Your task to perform on an android device: Search for "corsair k70" on newegg, select the first entry, add it to the cart, then select checkout. Image 0: 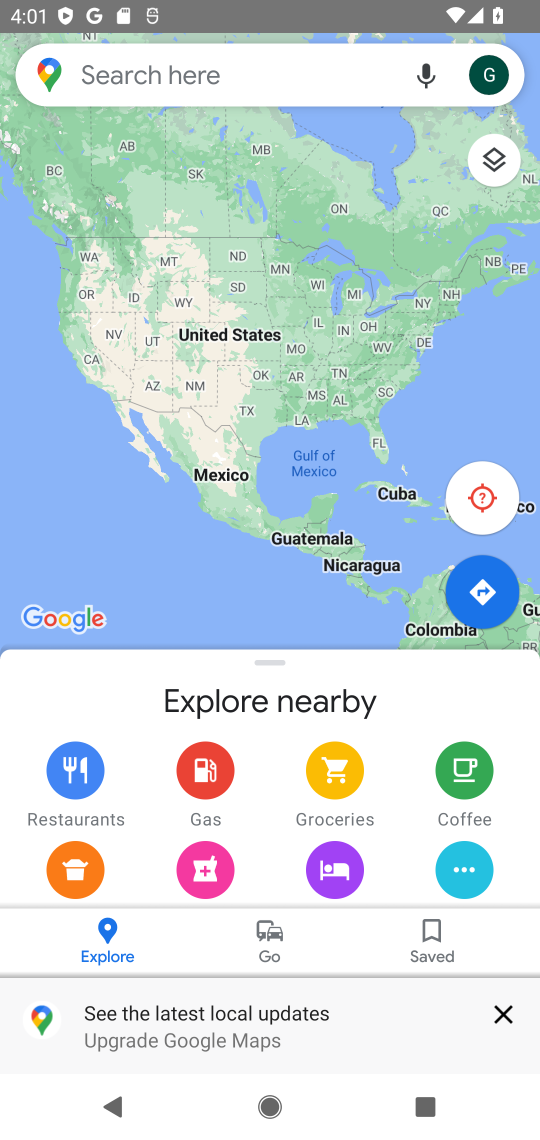
Step 0: press home button
Your task to perform on an android device: Search for "corsair k70" on newegg, select the first entry, add it to the cart, then select checkout. Image 1: 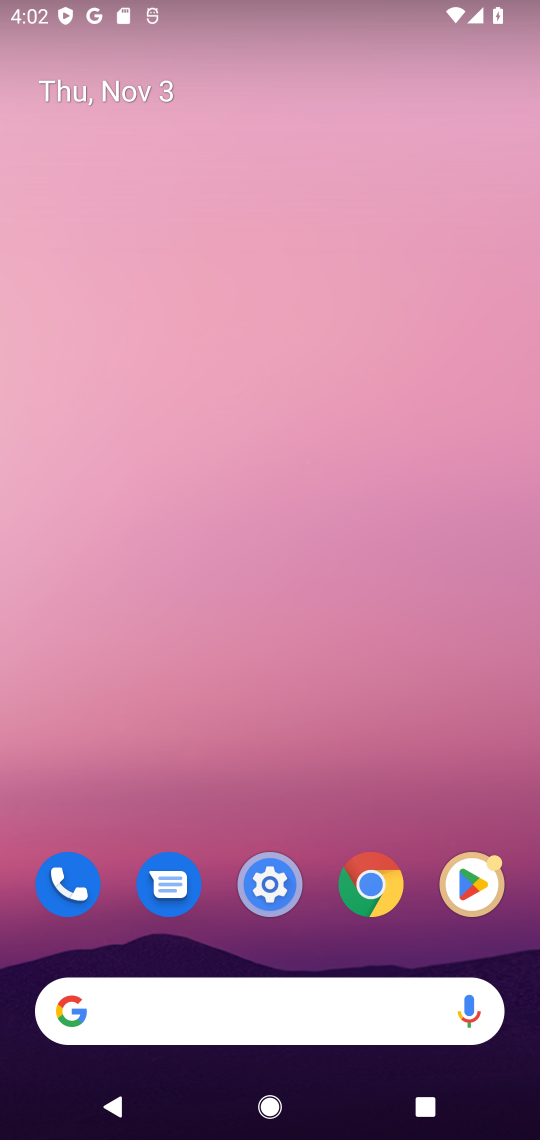
Step 1: click (110, 1013)
Your task to perform on an android device: Search for "corsair k70" on newegg, select the first entry, add it to the cart, then select checkout. Image 2: 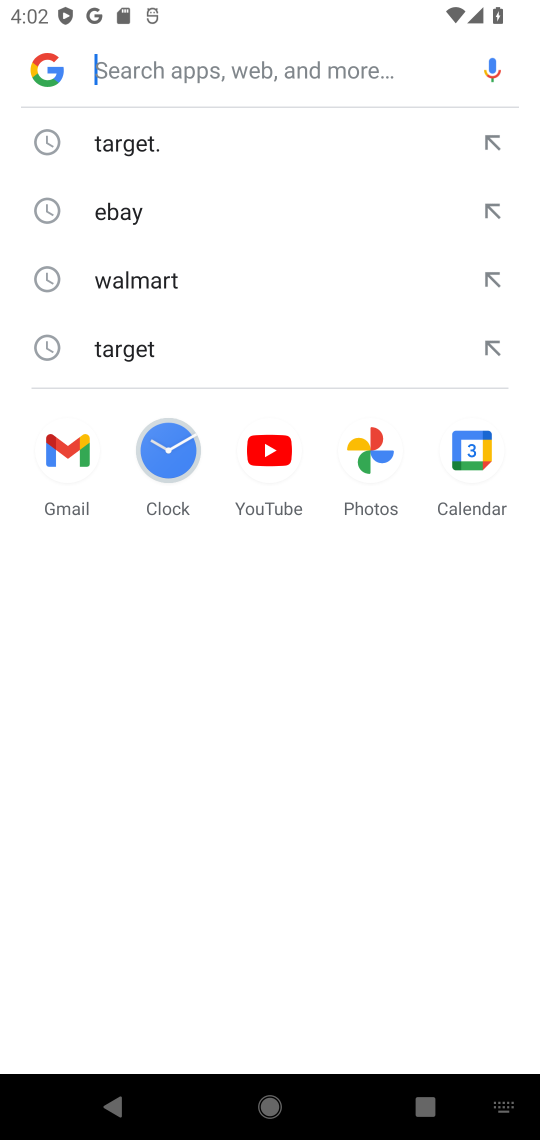
Step 2: type "newegg"
Your task to perform on an android device: Search for "corsair k70" on newegg, select the first entry, add it to the cart, then select checkout. Image 3: 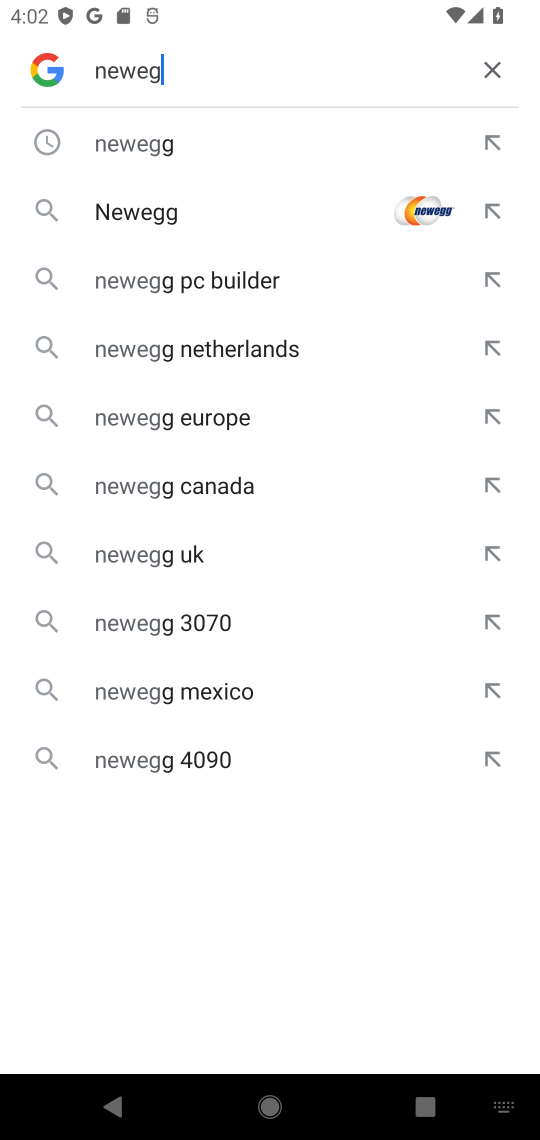
Step 3: press enter
Your task to perform on an android device: Search for "corsair k70" on newegg, select the first entry, add it to the cart, then select checkout. Image 4: 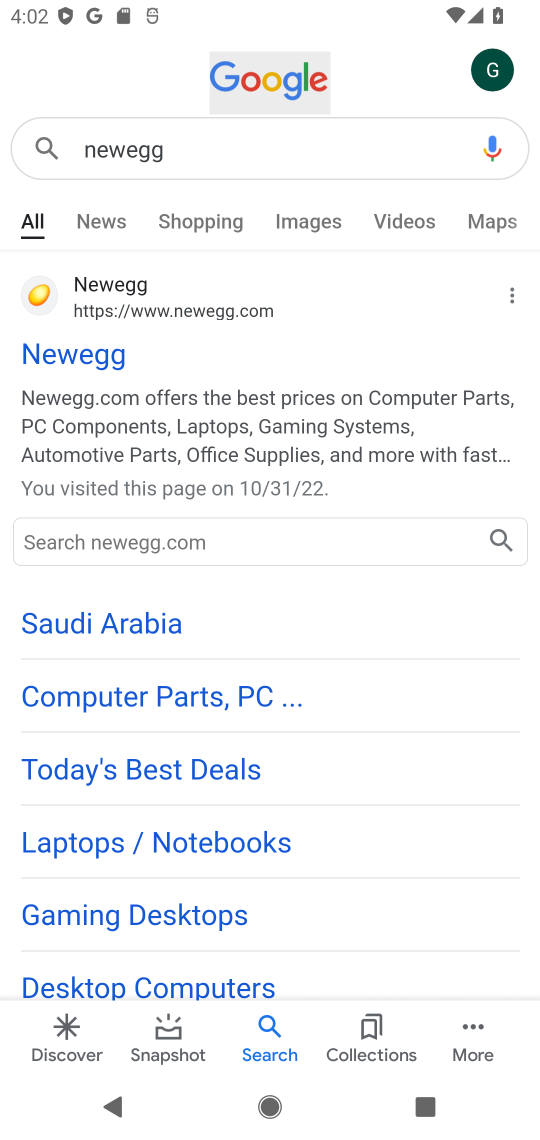
Step 4: click (86, 359)
Your task to perform on an android device: Search for "corsair k70" on newegg, select the first entry, add it to the cart, then select checkout. Image 5: 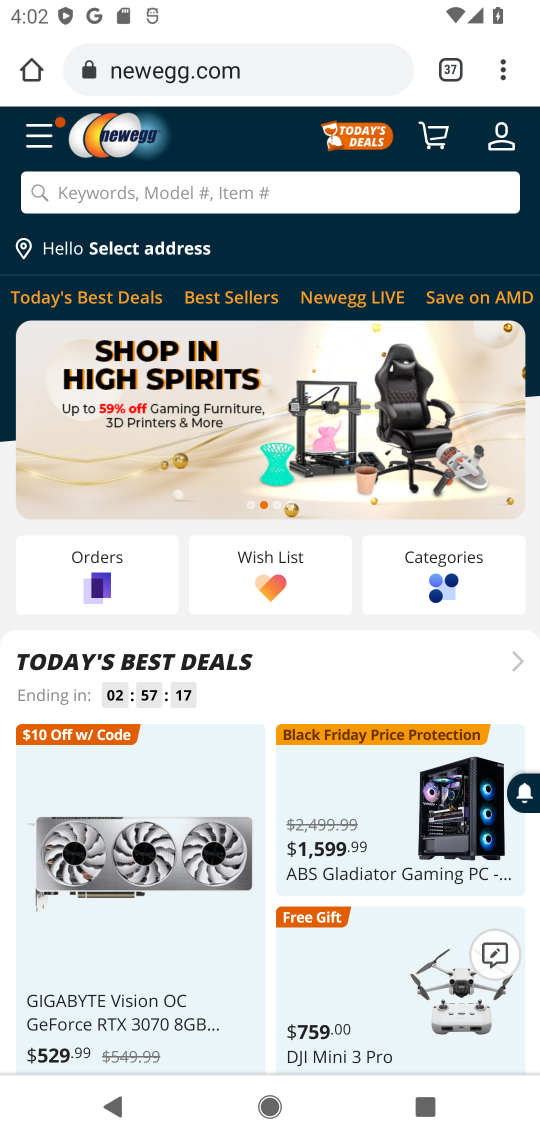
Step 5: click (65, 193)
Your task to perform on an android device: Search for "corsair k70" on newegg, select the first entry, add it to the cart, then select checkout. Image 6: 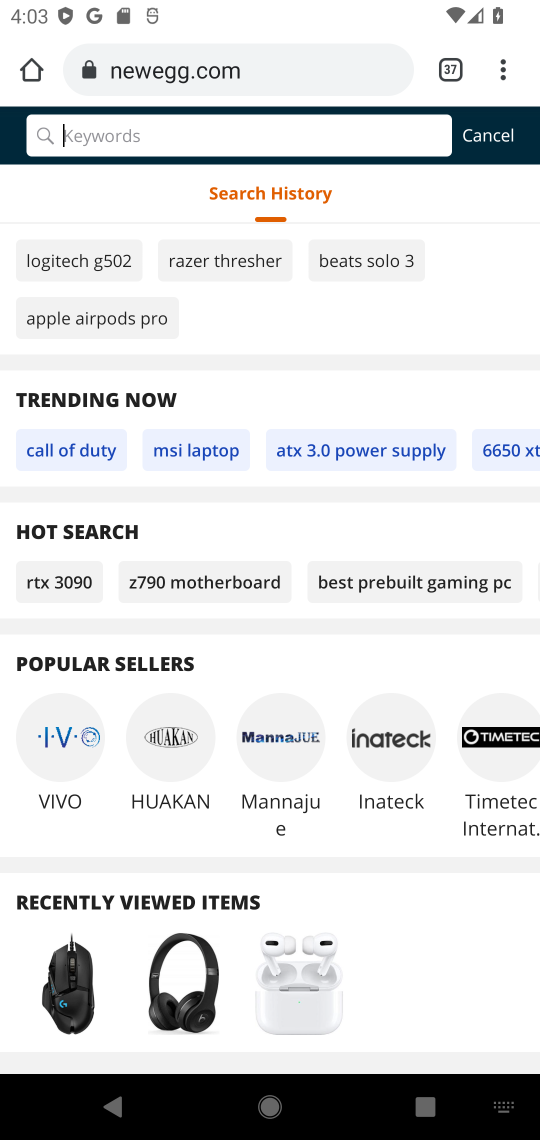
Step 6: type "corsair k70"
Your task to perform on an android device: Search for "corsair k70" on newegg, select the first entry, add it to the cart, then select checkout. Image 7: 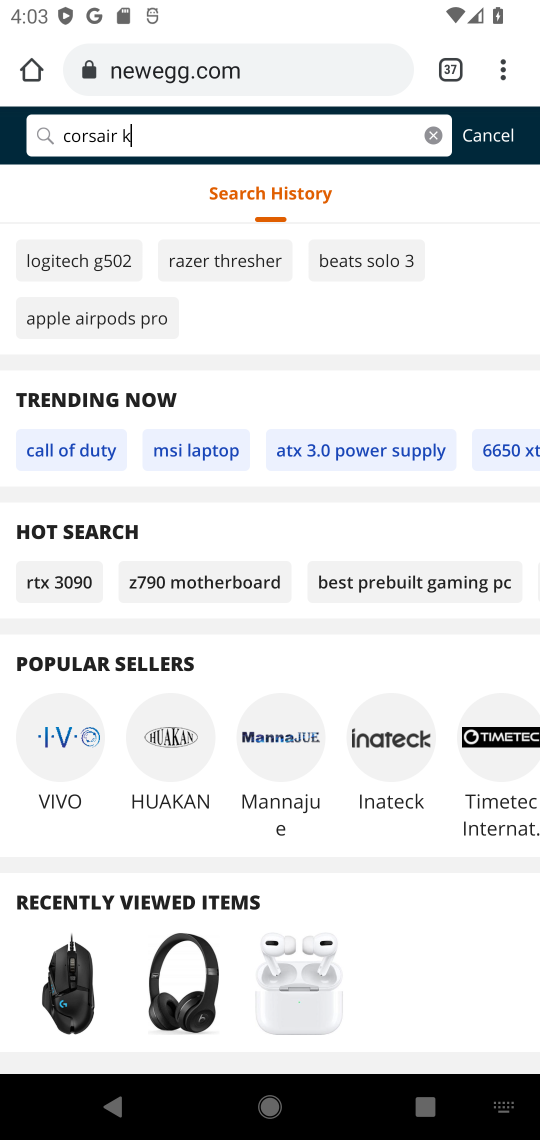
Step 7: press enter
Your task to perform on an android device: Search for "corsair k70" on newegg, select the first entry, add it to the cart, then select checkout. Image 8: 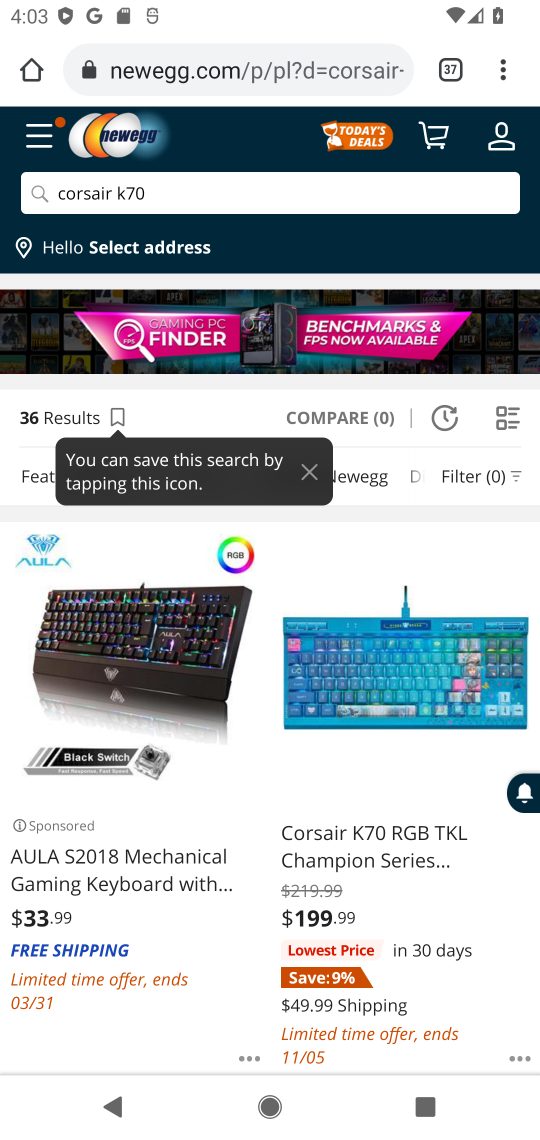
Step 8: click (355, 840)
Your task to perform on an android device: Search for "corsair k70" on newegg, select the first entry, add it to the cart, then select checkout. Image 9: 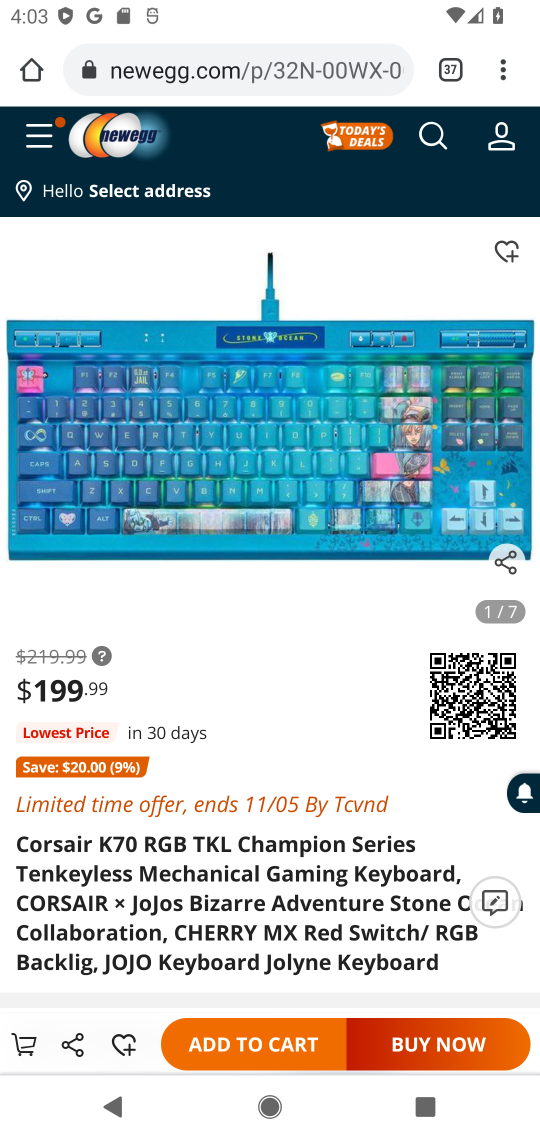
Step 9: click (217, 1055)
Your task to perform on an android device: Search for "corsair k70" on newegg, select the first entry, add it to the cart, then select checkout. Image 10: 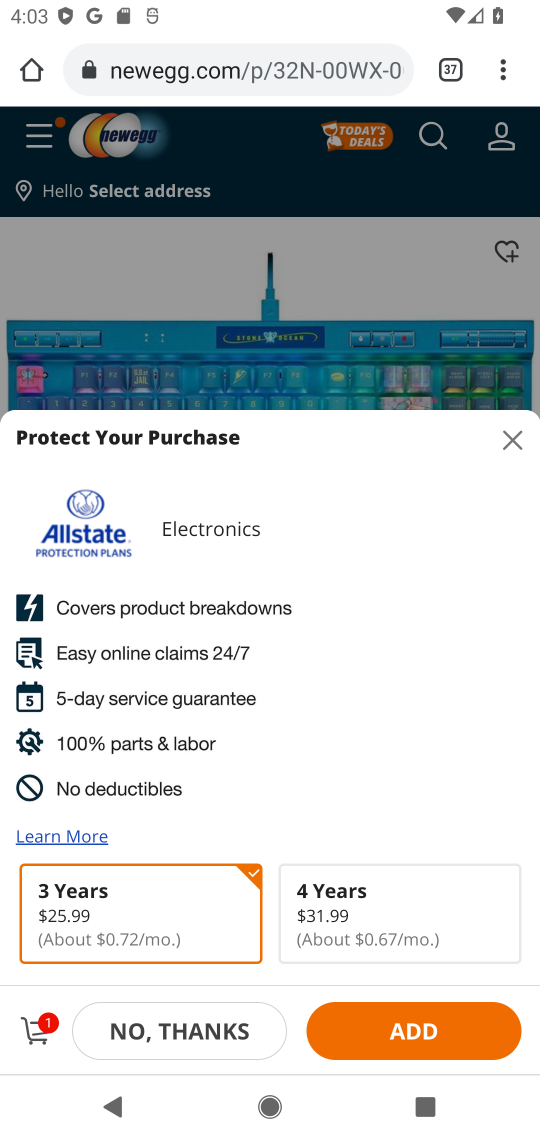
Step 10: click (196, 1030)
Your task to perform on an android device: Search for "corsair k70" on newegg, select the first entry, add it to the cart, then select checkout. Image 11: 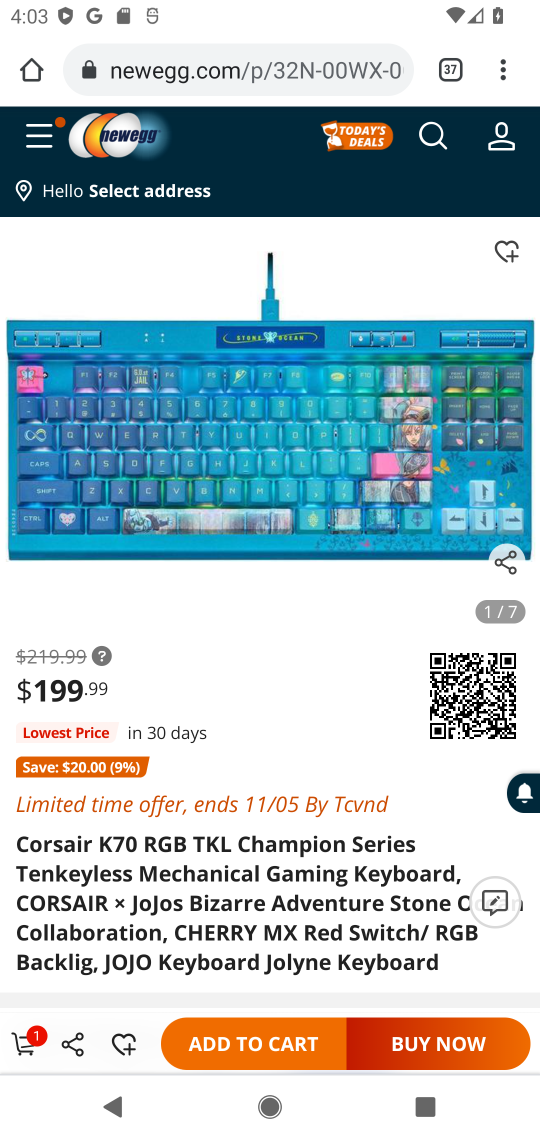
Step 11: click (24, 1041)
Your task to perform on an android device: Search for "corsair k70" on newegg, select the first entry, add it to the cart, then select checkout. Image 12: 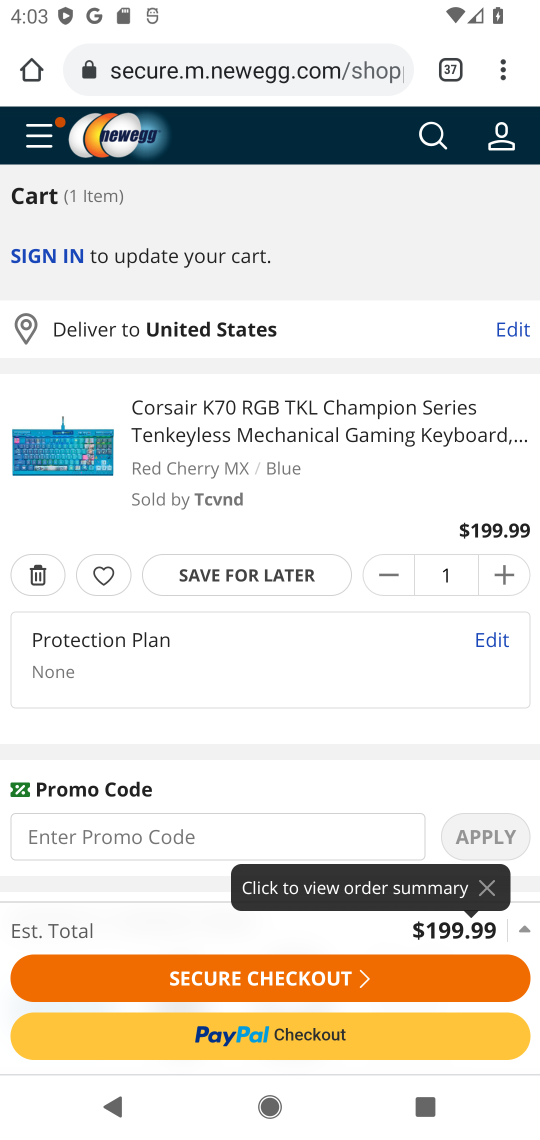
Step 12: click (273, 984)
Your task to perform on an android device: Search for "corsair k70" on newegg, select the first entry, add it to the cart, then select checkout. Image 13: 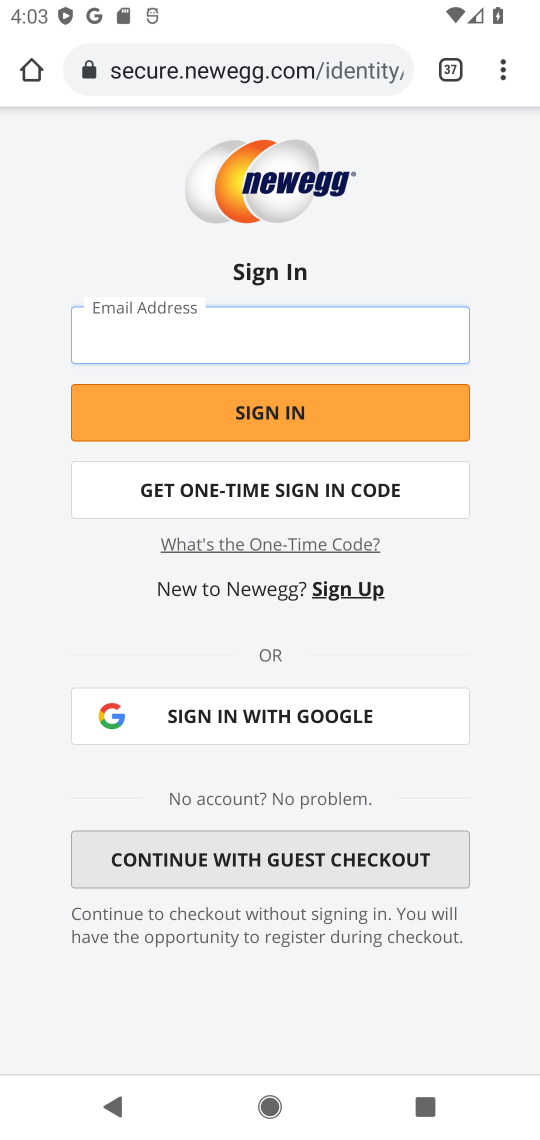
Step 13: task complete